Your task to perform on an android device: clear history in the chrome app Image 0: 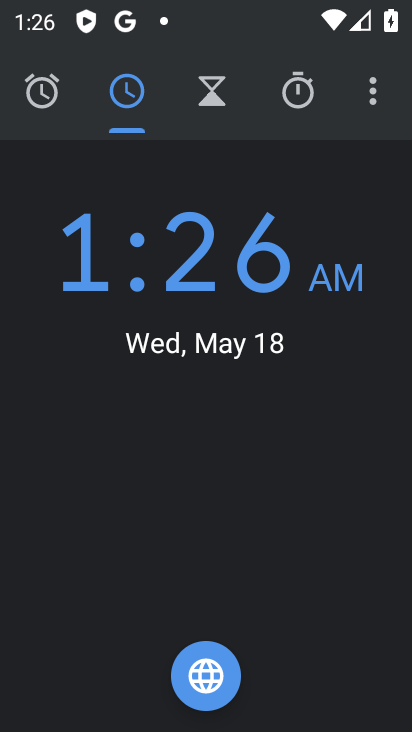
Step 0: click (403, 359)
Your task to perform on an android device: clear history in the chrome app Image 1: 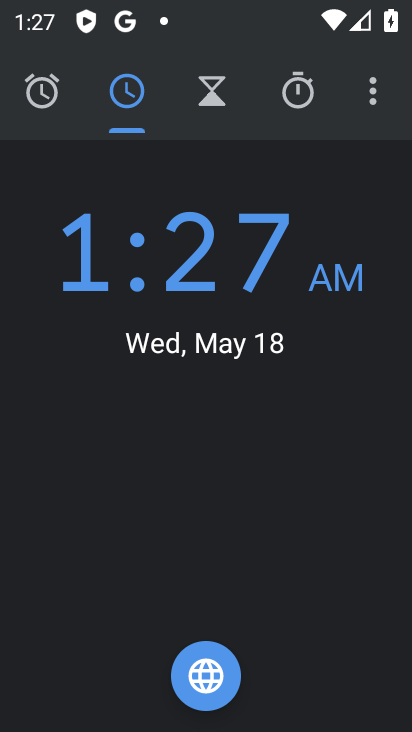
Step 1: press home button
Your task to perform on an android device: clear history in the chrome app Image 2: 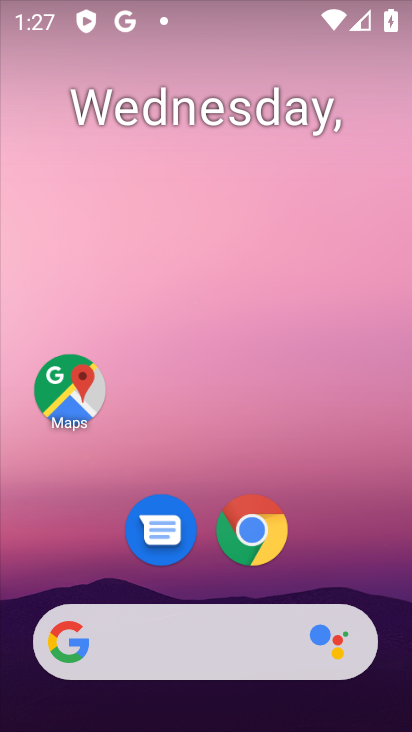
Step 2: click (258, 542)
Your task to perform on an android device: clear history in the chrome app Image 3: 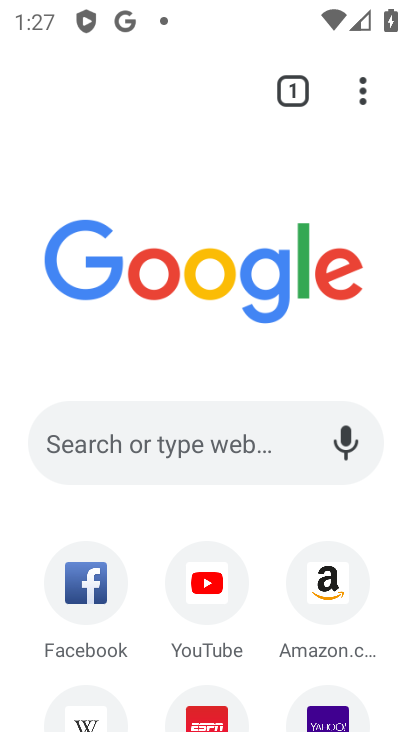
Step 3: click (364, 91)
Your task to perform on an android device: clear history in the chrome app Image 4: 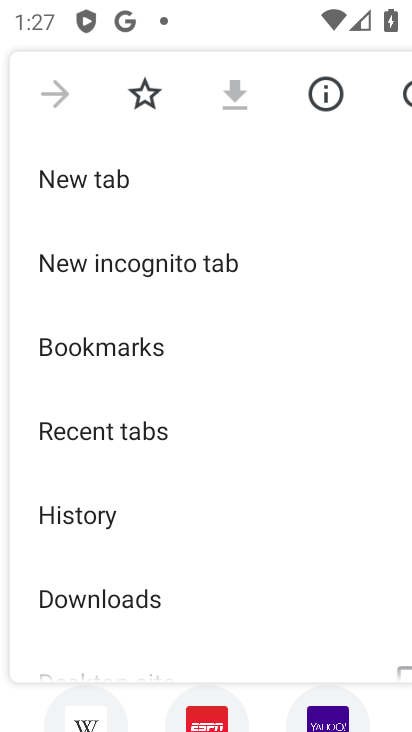
Step 4: click (77, 516)
Your task to perform on an android device: clear history in the chrome app Image 5: 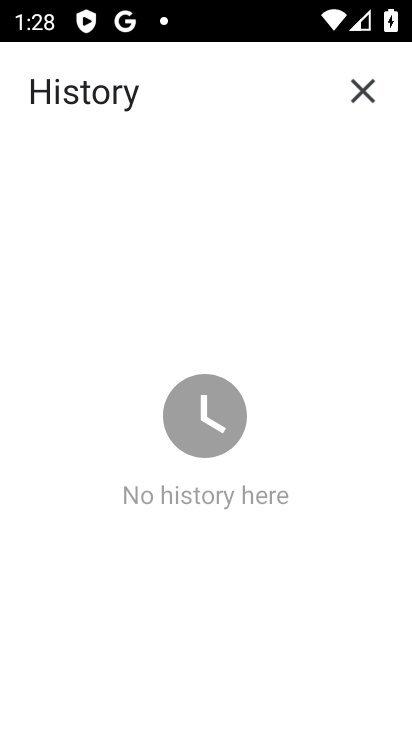
Step 5: task complete